Your task to perform on an android device: Open Google Image 0: 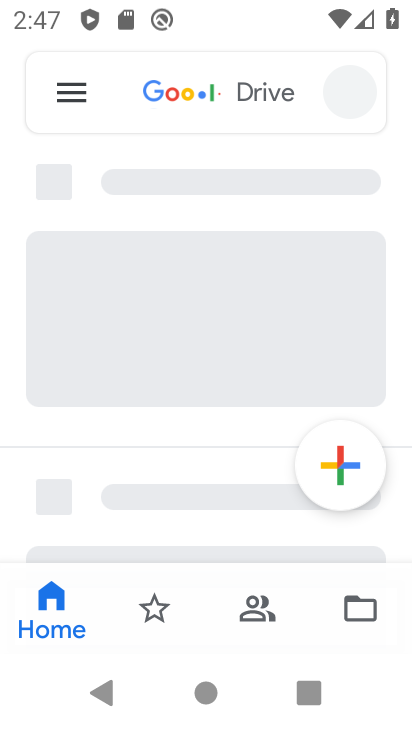
Step 0: click (176, 543)
Your task to perform on an android device: Open Google Image 1: 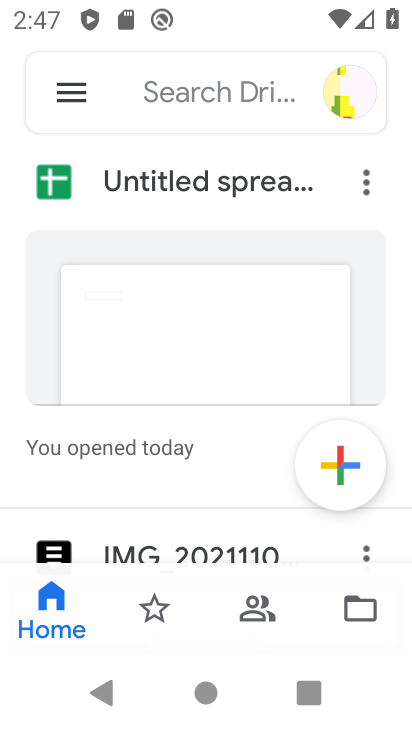
Step 1: press home button
Your task to perform on an android device: Open Google Image 2: 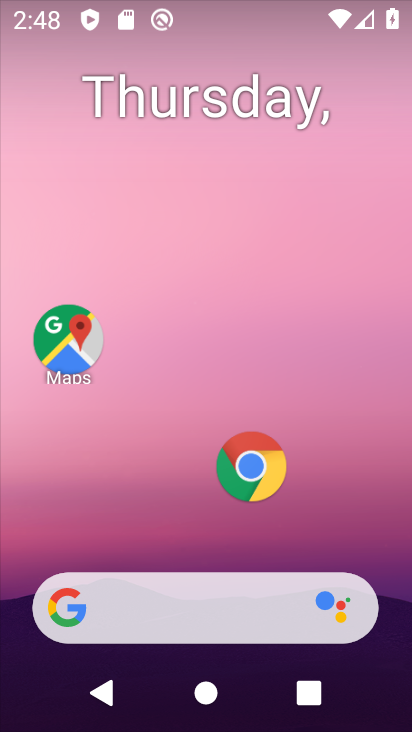
Step 2: drag from (168, 534) to (173, 73)
Your task to perform on an android device: Open Google Image 3: 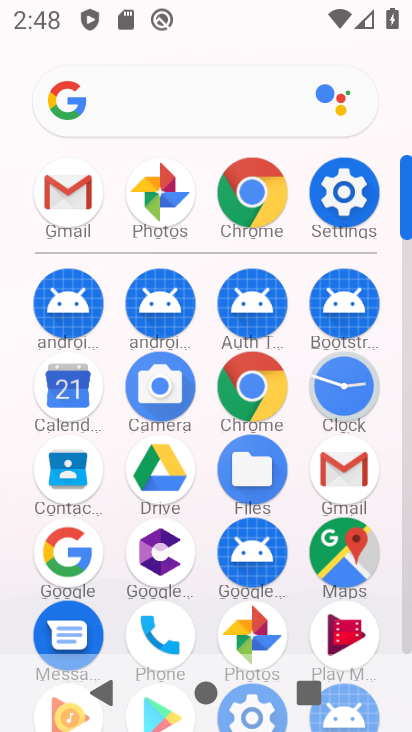
Step 3: click (76, 553)
Your task to perform on an android device: Open Google Image 4: 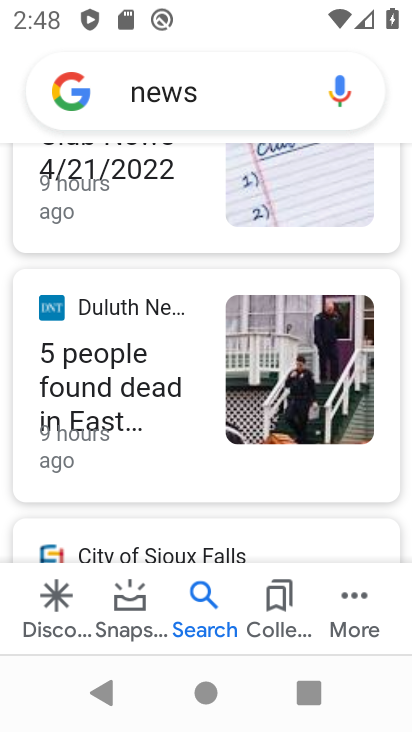
Step 4: task complete